Your task to perform on an android device: Open accessibility settings Image 0: 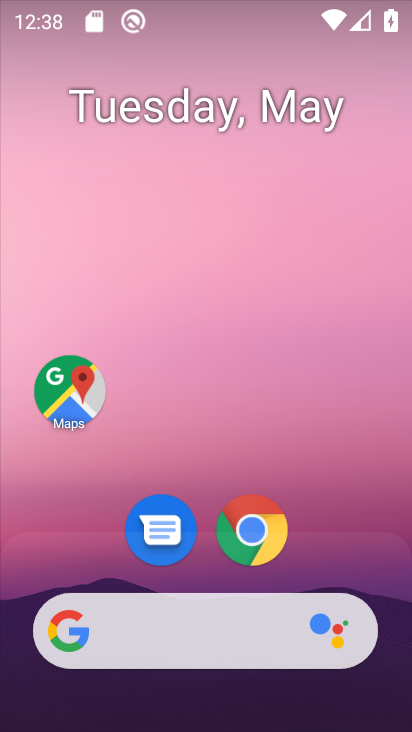
Step 0: drag from (204, 571) to (202, 111)
Your task to perform on an android device: Open accessibility settings Image 1: 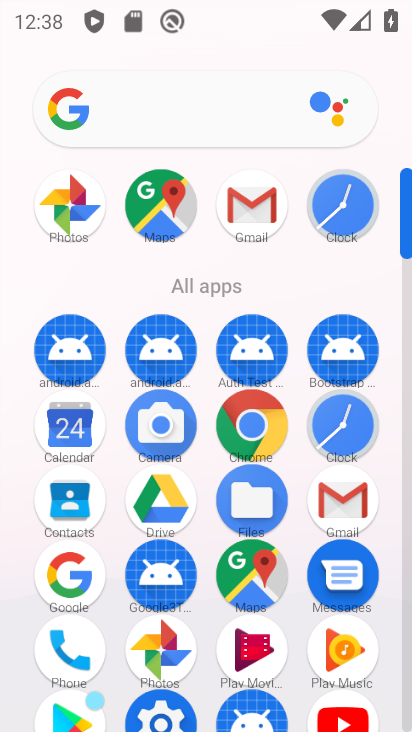
Step 1: drag from (196, 583) to (203, 129)
Your task to perform on an android device: Open accessibility settings Image 2: 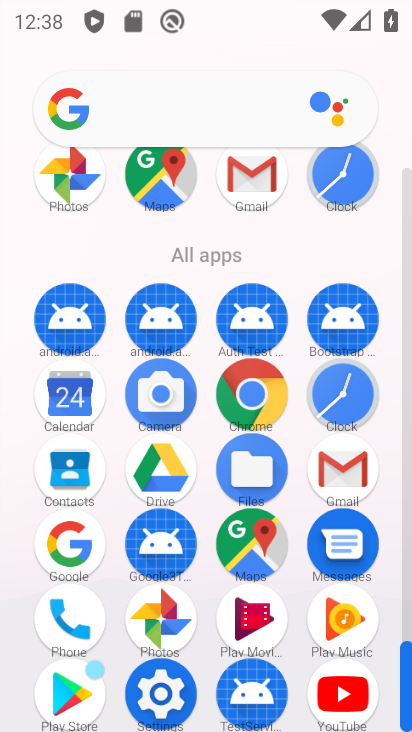
Step 2: click (165, 689)
Your task to perform on an android device: Open accessibility settings Image 3: 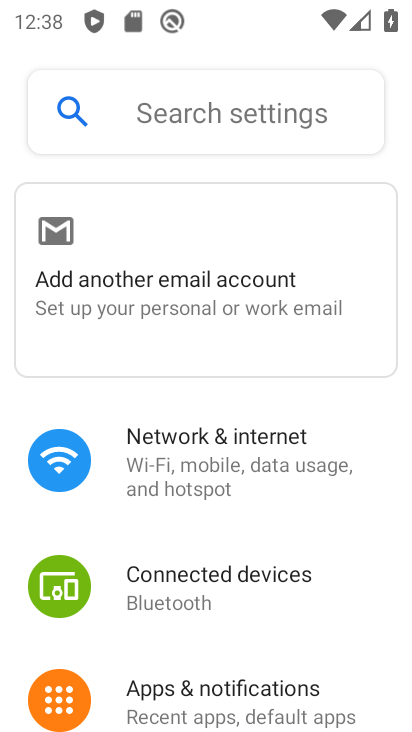
Step 3: drag from (234, 604) to (238, 135)
Your task to perform on an android device: Open accessibility settings Image 4: 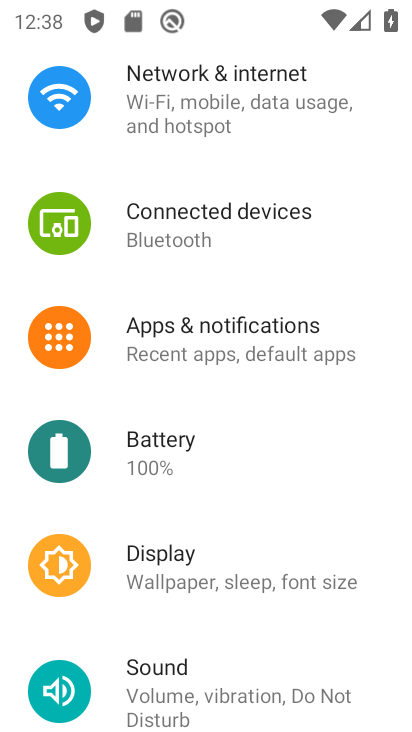
Step 4: drag from (191, 473) to (187, 99)
Your task to perform on an android device: Open accessibility settings Image 5: 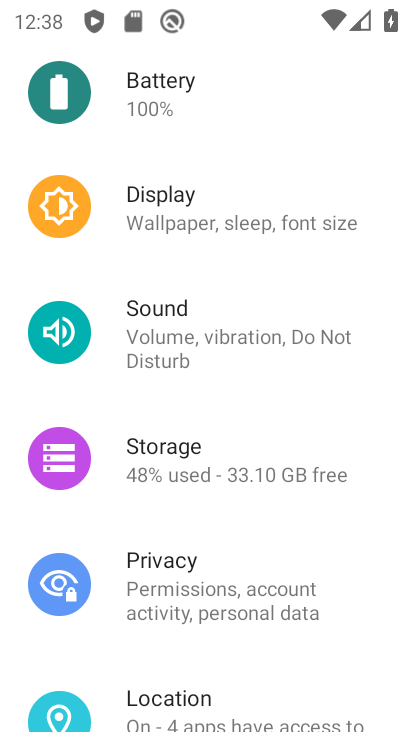
Step 5: drag from (177, 692) to (201, 153)
Your task to perform on an android device: Open accessibility settings Image 6: 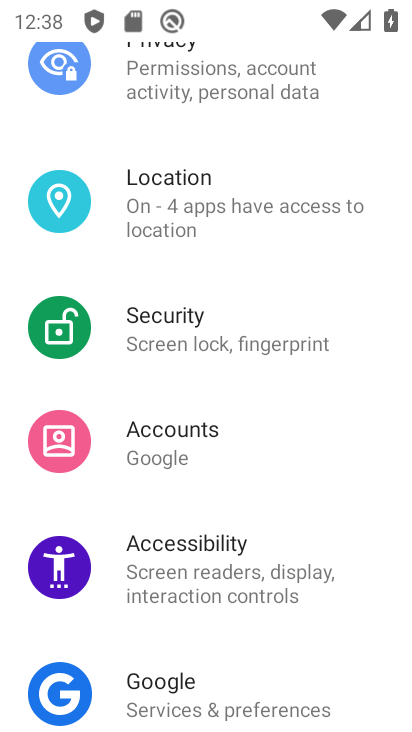
Step 6: click (186, 592)
Your task to perform on an android device: Open accessibility settings Image 7: 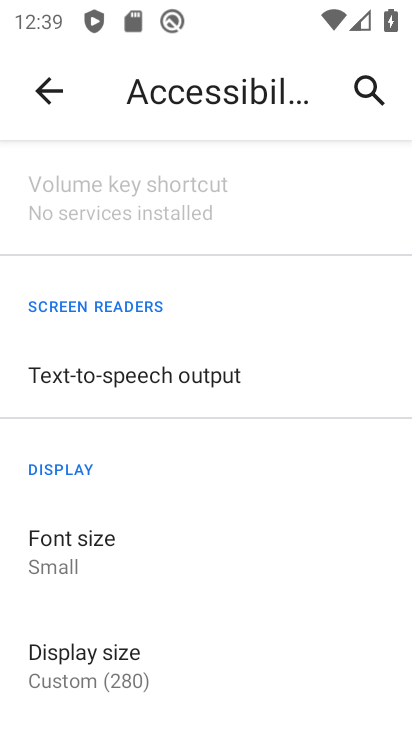
Step 7: task complete